Your task to perform on an android device: turn vacation reply on in the gmail app Image 0: 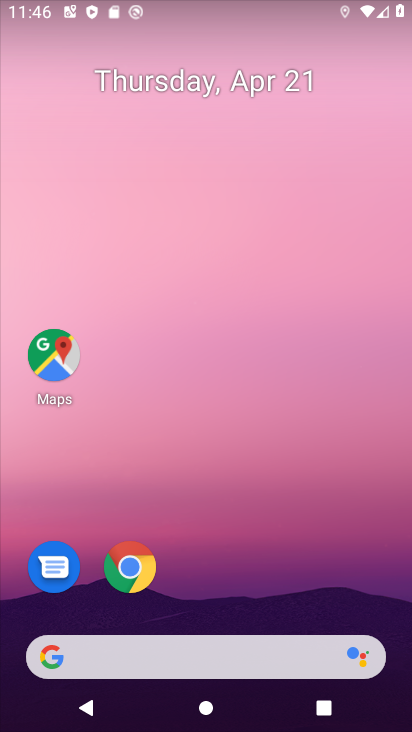
Step 0: drag from (174, 609) to (49, 187)
Your task to perform on an android device: turn vacation reply on in the gmail app Image 1: 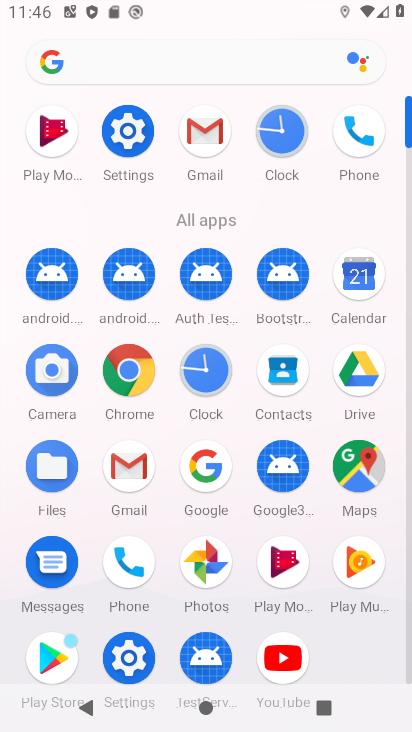
Step 1: click (138, 465)
Your task to perform on an android device: turn vacation reply on in the gmail app Image 2: 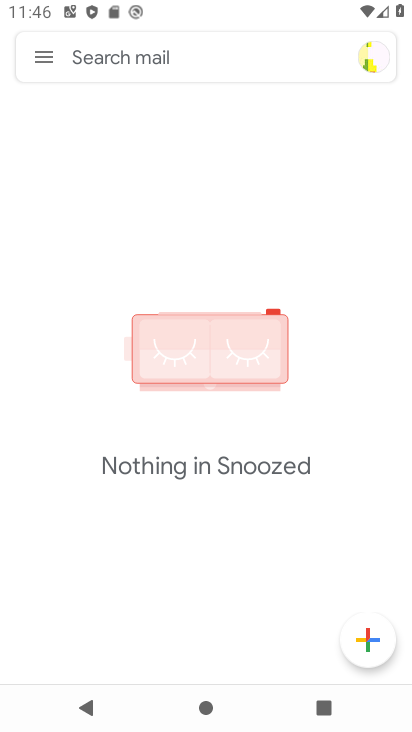
Step 2: press home button
Your task to perform on an android device: turn vacation reply on in the gmail app Image 3: 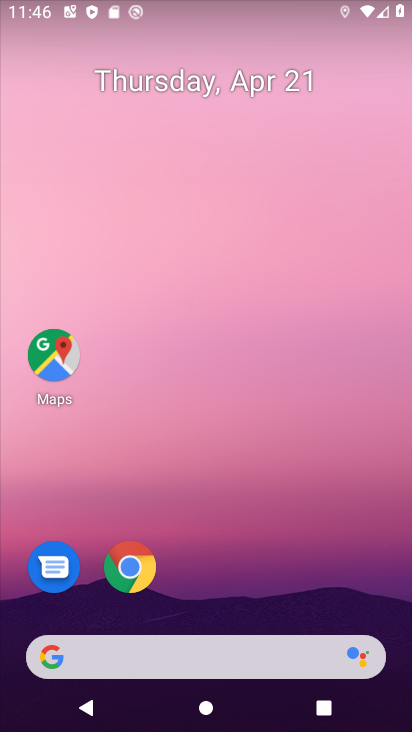
Step 3: drag from (195, 666) to (149, 1)
Your task to perform on an android device: turn vacation reply on in the gmail app Image 4: 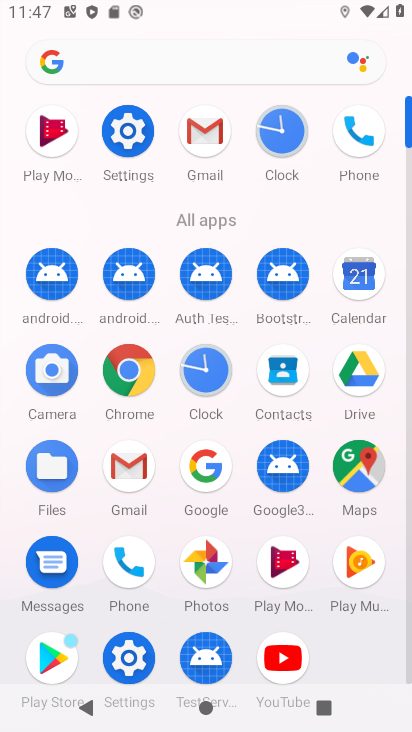
Step 4: click (141, 465)
Your task to perform on an android device: turn vacation reply on in the gmail app Image 5: 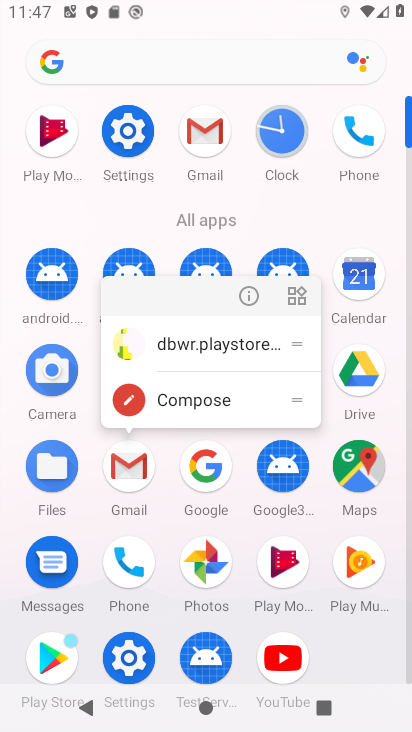
Step 5: click (252, 304)
Your task to perform on an android device: turn vacation reply on in the gmail app Image 6: 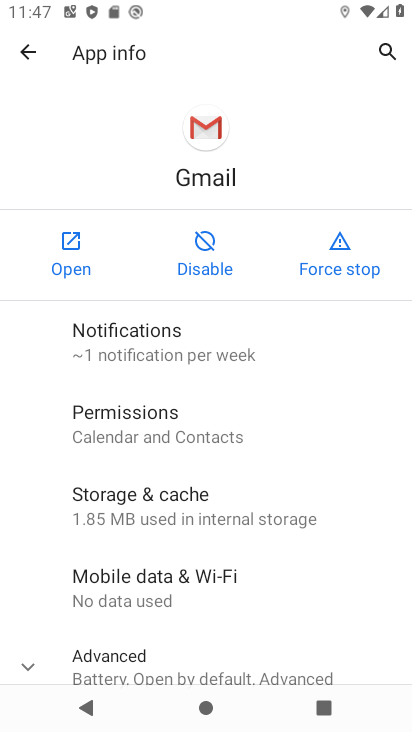
Step 6: click (60, 265)
Your task to perform on an android device: turn vacation reply on in the gmail app Image 7: 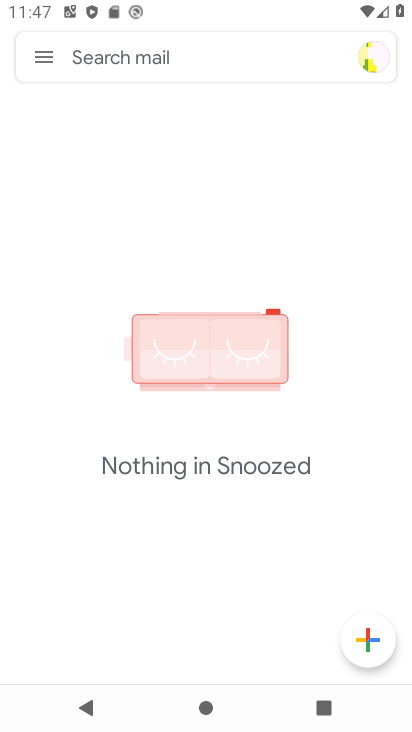
Step 7: click (32, 57)
Your task to perform on an android device: turn vacation reply on in the gmail app Image 8: 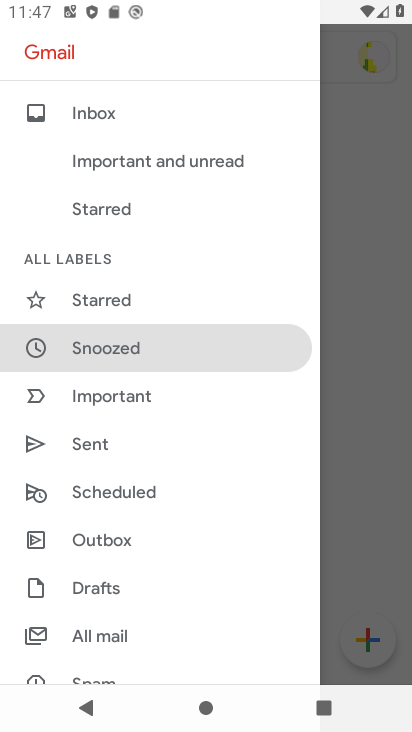
Step 8: drag from (176, 652) to (165, 219)
Your task to perform on an android device: turn vacation reply on in the gmail app Image 9: 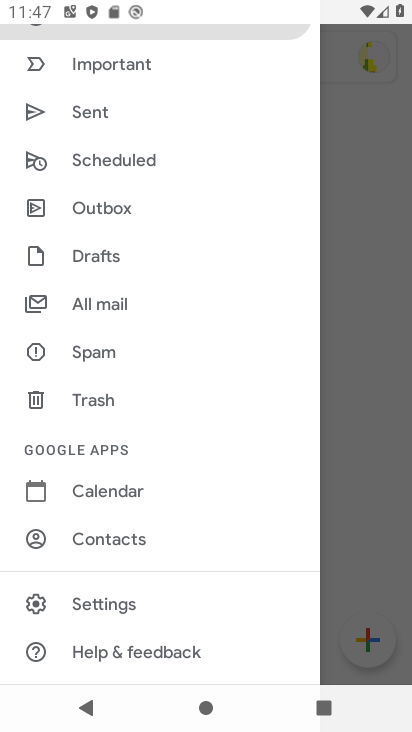
Step 9: click (77, 622)
Your task to perform on an android device: turn vacation reply on in the gmail app Image 10: 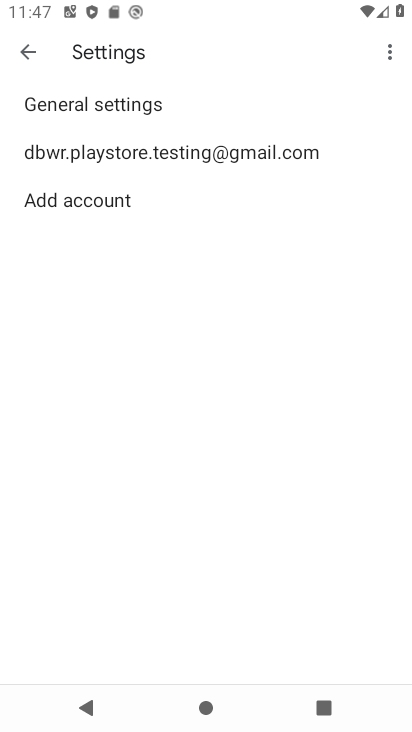
Step 10: click (103, 156)
Your task to perform on an android device: turn vacation reply on in the gmail app Image 11: 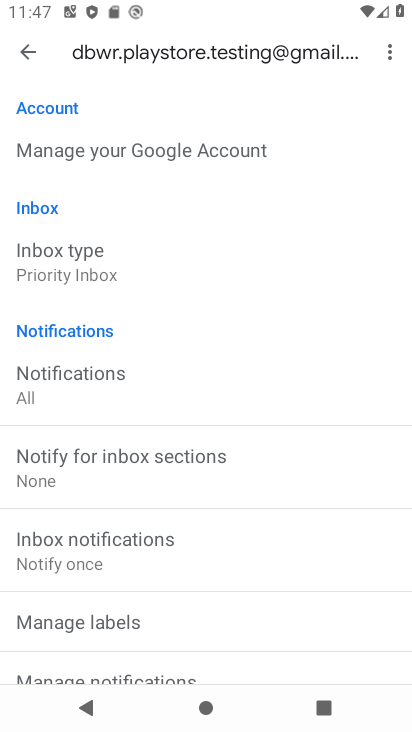
Step 11: drag from (132, 595) to (131, 308)
Your task to perform on an android device: turn vacation reply on in the gmail app Image 12: 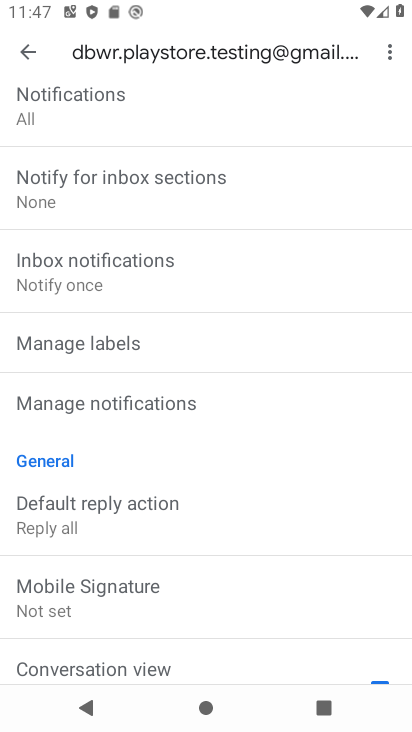
Step 12: drag from (139, 518) to (186, 361)
Your task to perform on an android device: turn vacation reply on in the gmail app Image 13: 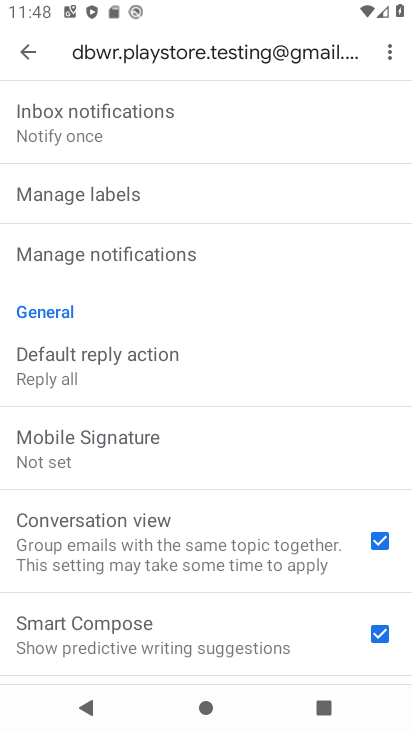
Step 13: drag from (159, 514) to (222, 228)
Your task to perform on an android device: turn vacation reply on in the gmail app Image 14: 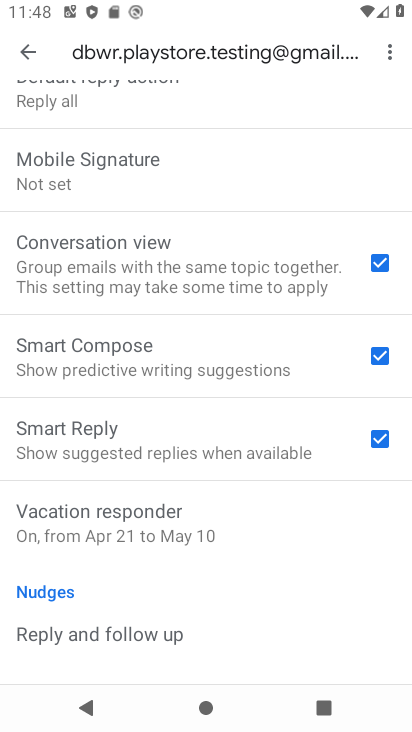
Step 14: click (129, 542)
Your task to perform on an android device: turn vacation reply on in the gmail app Image 15: 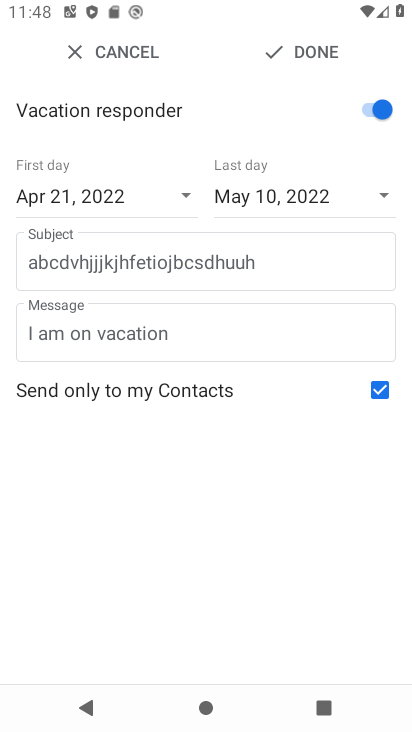
Step 15: task complete